Your task to perform on an android device: change the clock style Image 0: 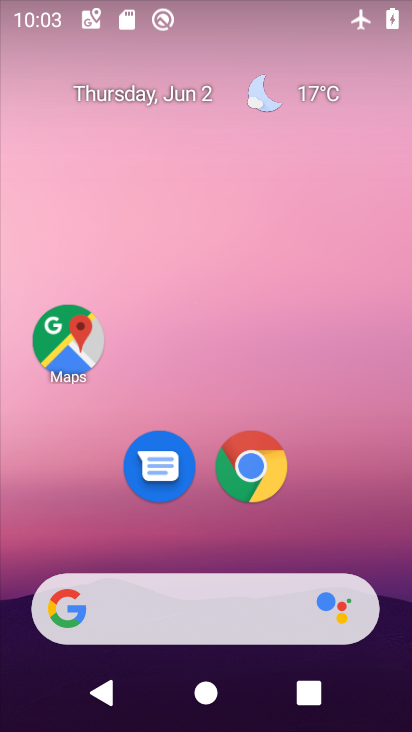
Step 0: drag from (263, 542) to (265, 234)
Your task to perform on an android device: change the clock style Image 1: 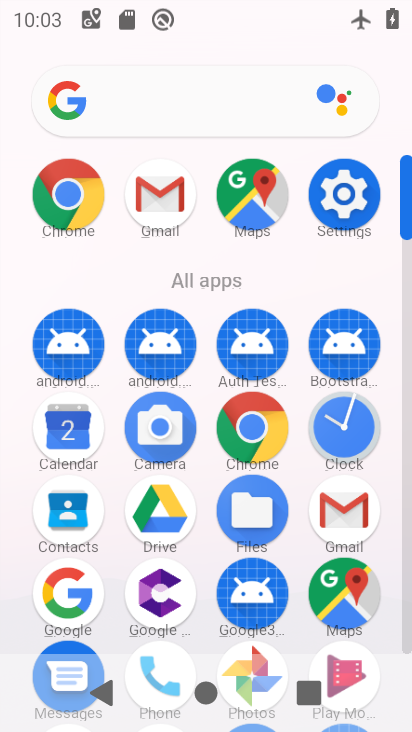
Step 1: click (333, 435)
Your task to perform on an android device: change the clock style Image 2: 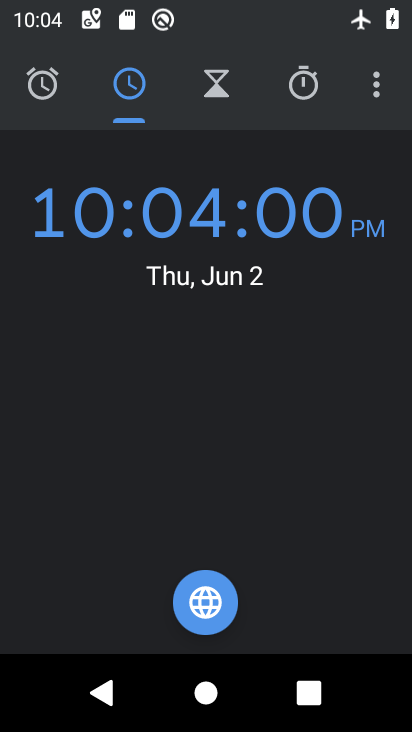
Step 2: click (368, 99)
Your task to perform on an android device: change the clock style Image 3: 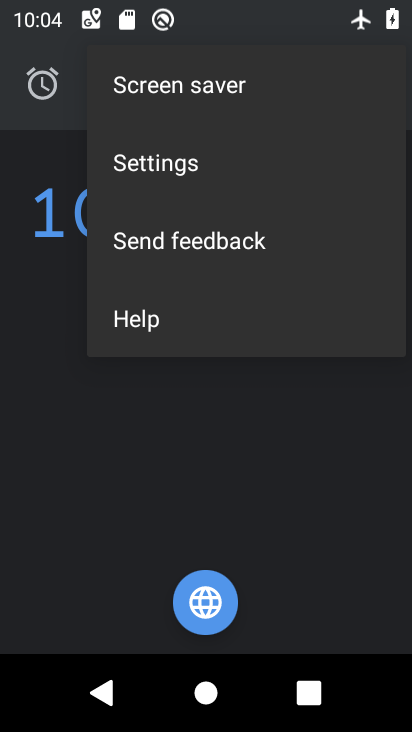
Step 3: click (189, 174)
Your task to perform on an android device: change the clock style Image 4: 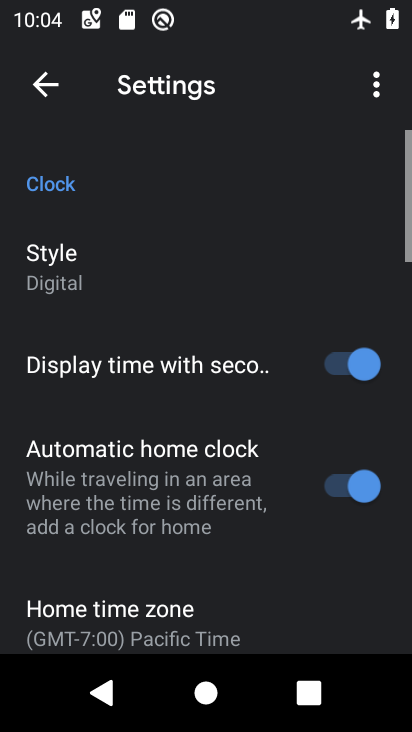
Step 4: click (54, 255)
Your task to perform on an android device: change the clock style Image 5: 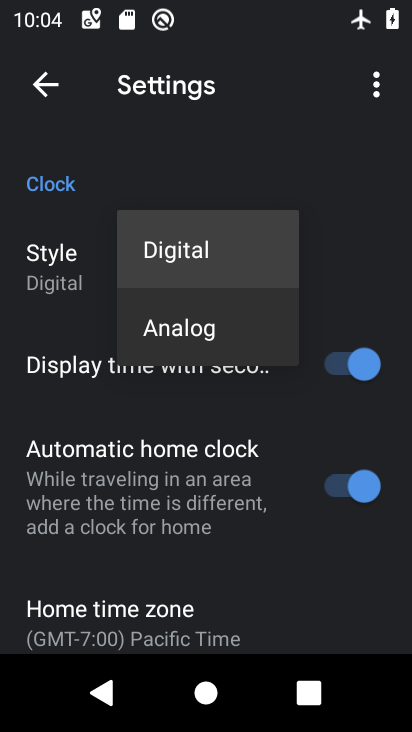
Step 5: click (167, 320)
Your task to perform on an android device: change the clock style Image 6: 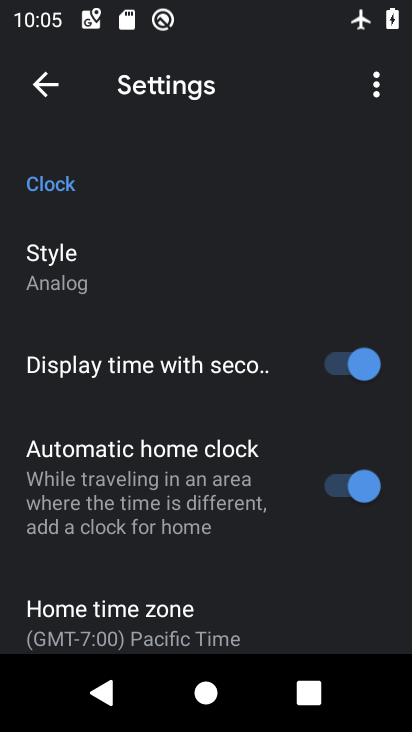
Step 6: task complete